Your task to perform on an android device: install app "Upside-Cash back on gas & food" Image 0: 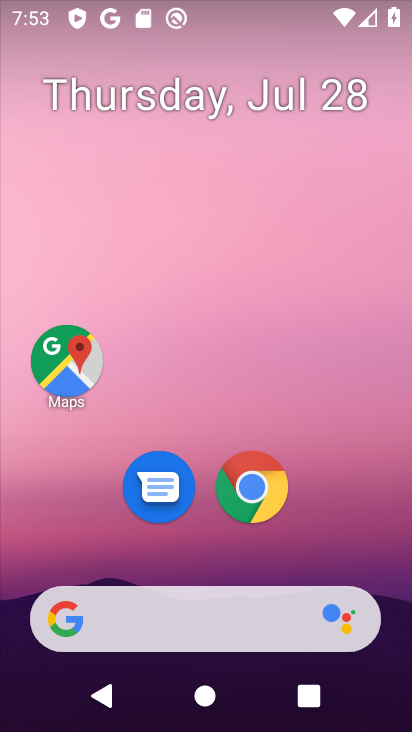
Step 0: drag from (262, 624) to (143, 99)
Your task to perform on an android device: install app "Upside-Cash back on gas & food" Image 1: 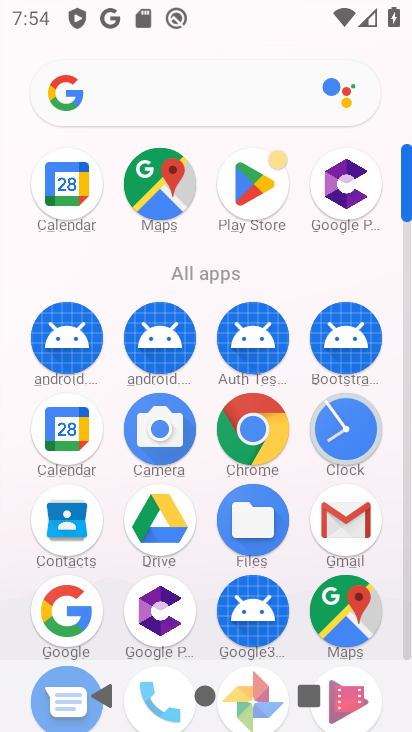
Step 1: click (257, 180)
Your task to perform on an android device: install app "Upside-Cash back on gas & food" Image 2: 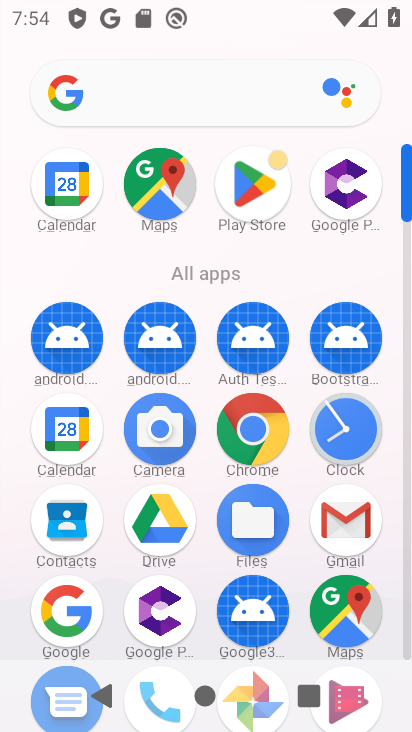
Step 2: click (257, 180)
Your task to perform on an android device: install app "Upside-Cash back on gas & food" Image 3: 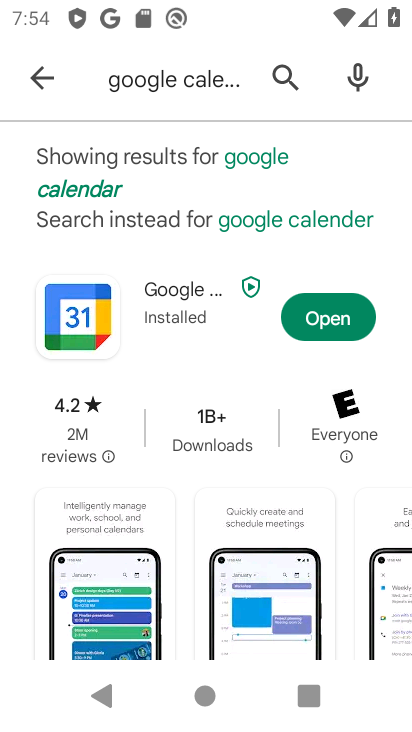
Step 3: click (36, 79)
Your task to perform on an android device: install app "Upside-Cash back on gas & food" Image 4: 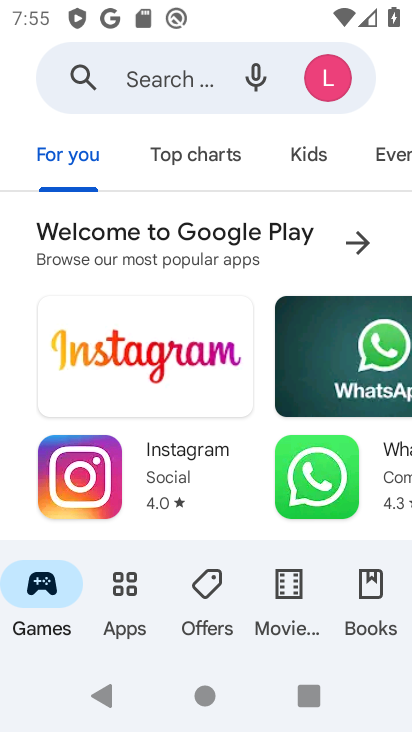
Step 4: click (148, 80)
Your task to perform on an android device: install app "Upside-Cash back on gas & food" Image 5: 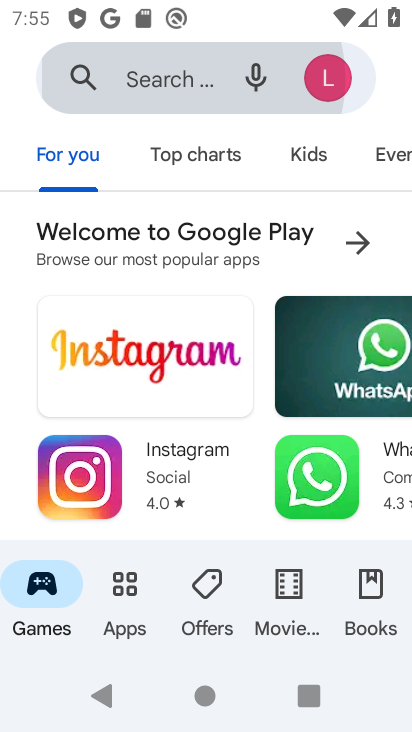
Step 5: click (148, 80)
Your task to perform on an android device: install app "Upside-Cash back on gas & food" Image 6: 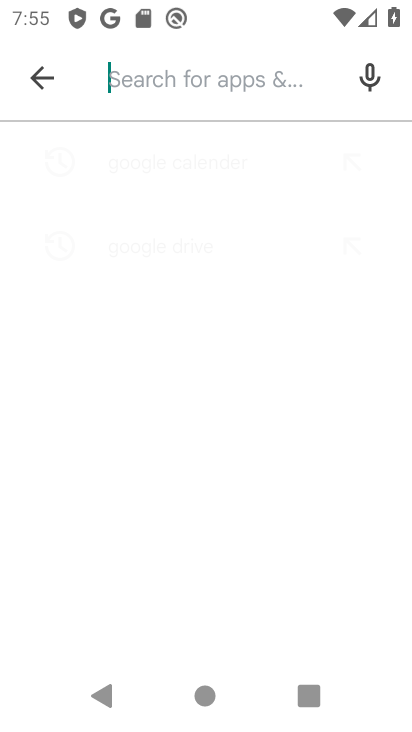
Step 6: click (147, 80)
Your task to perform on an android device: install app "Upside-Cash back on gas & food" Image 7: 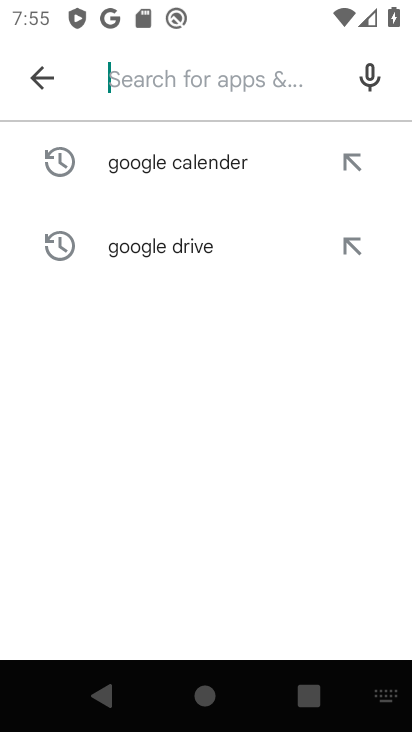
Step 7: click (147, 80)
Your task to perform on an android device: install app "Upside-Cash back on gas & food" Image 8: 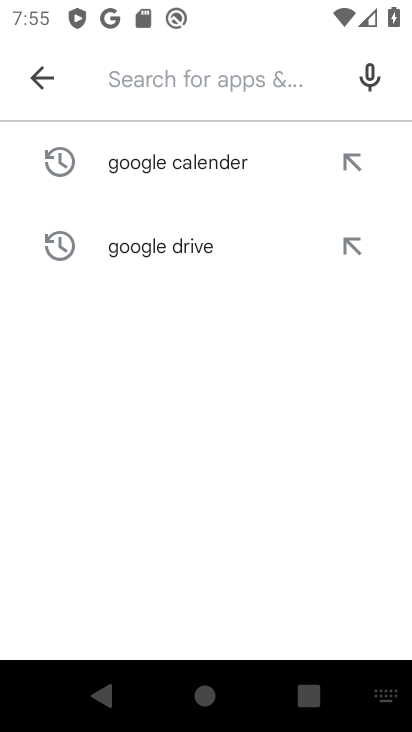
Step 8: click (147, 80)
Your task to perform on an android device: install app "Upside-Cash back on gas & food" Image 9: 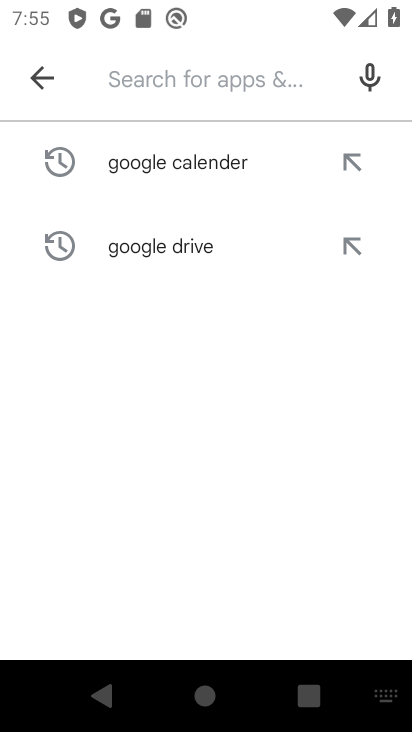
Step 9: type ""Upside-Cash back on gas & food""
Your task to perform on an android device: install app "Upside-Cash back on gas & food" Image 10: 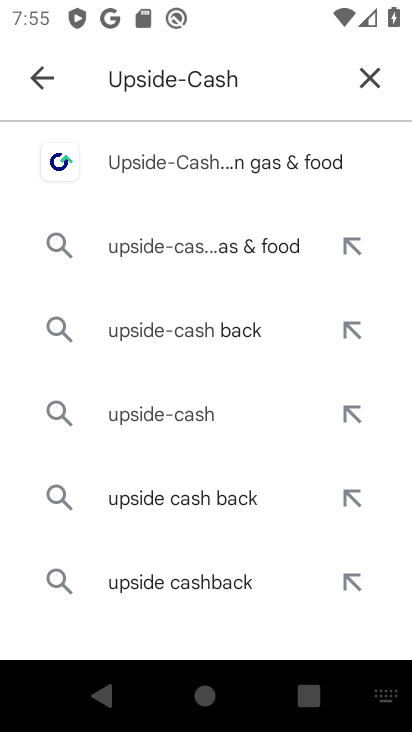
Step 10: click (250, 163)
Your task to perform on an android device: install app "Upside-Cash back on gas & food" Image 11: 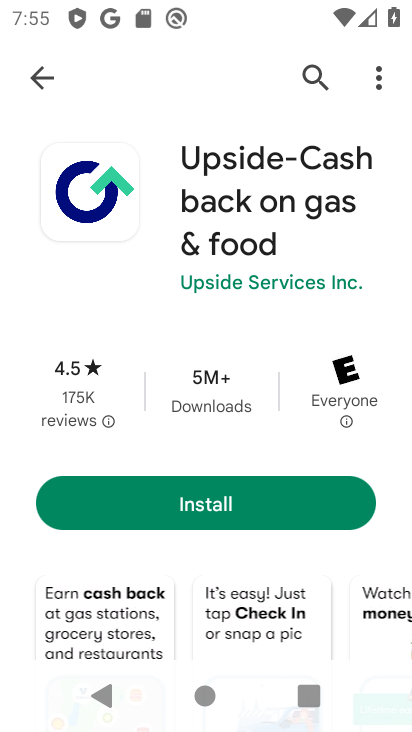
Step 11: click (235, 514)
Your task to perform on an android device: install app "Upside-Cash back on gas & food" Image 12: 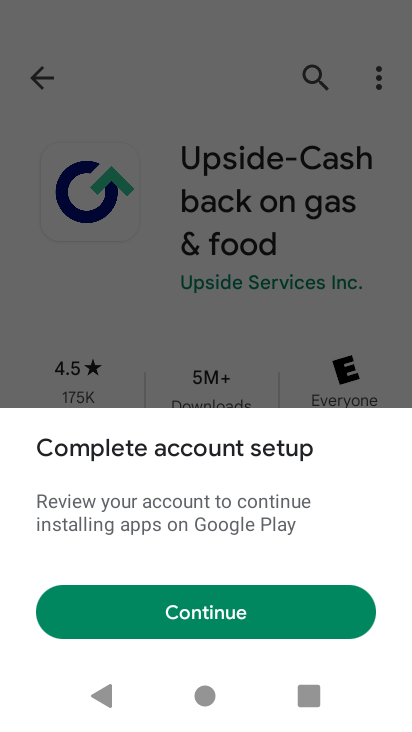
Step 12: click (241, 606)
Your task to perform on an android device: install app "Upside-Cash back on gas & food" Image 13: 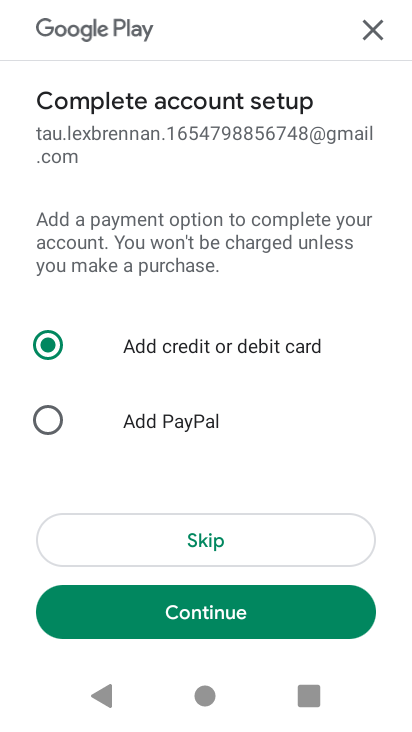
Step 13: click (208, 536)
Your task to perform on an android device: install app "Upside-Cash back on gas & food" Image 14: 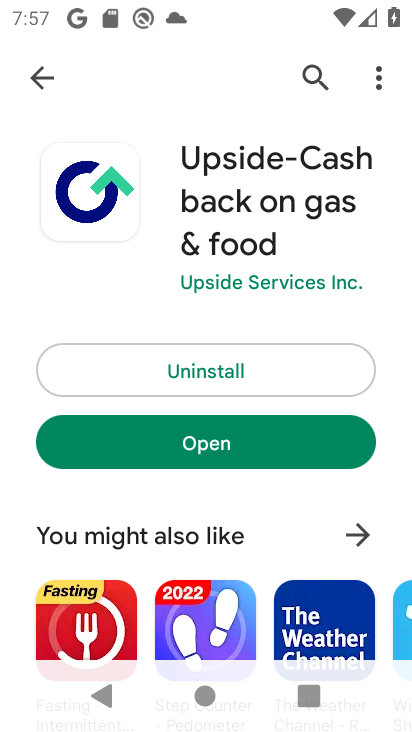
Step 14: click (262, 450)
Your task to perform on an android device: install app "Upside-Cash back on gas & food" Image 15: 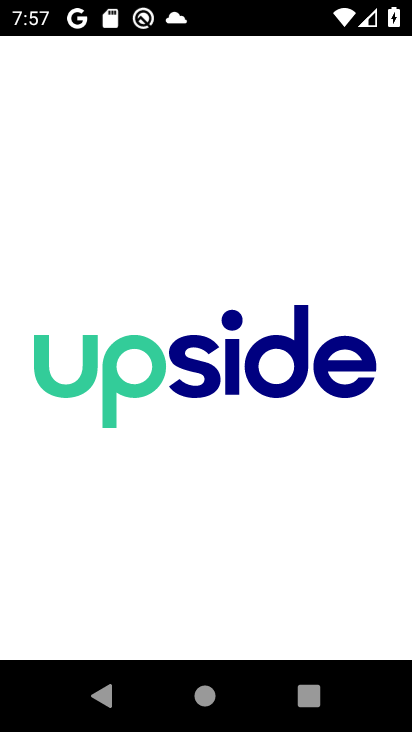
Step 15: task complete